Your task to perform on an android device: turn on airplane mode Image 0: 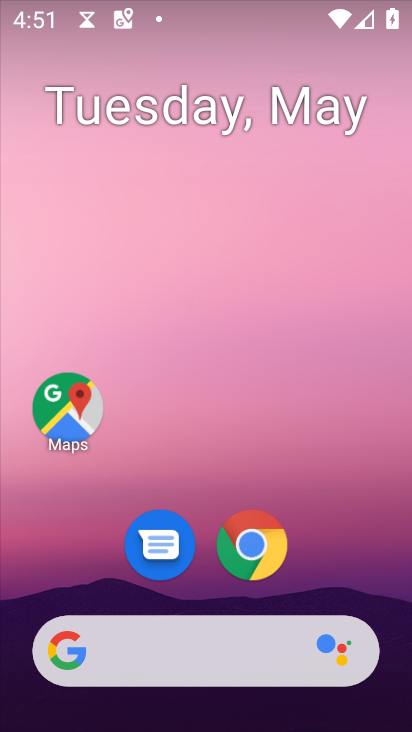
Step 0: drag from (339, 571) to (204, 199)
Your task to perform on an android device: turn on airplane mode Image 1: 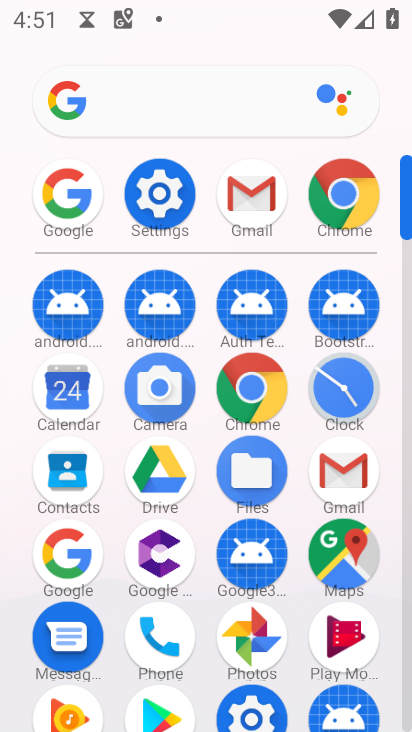
Step 1: click (160, 193)
Your task to perform on an android device: turn on airplane mode Image 2: 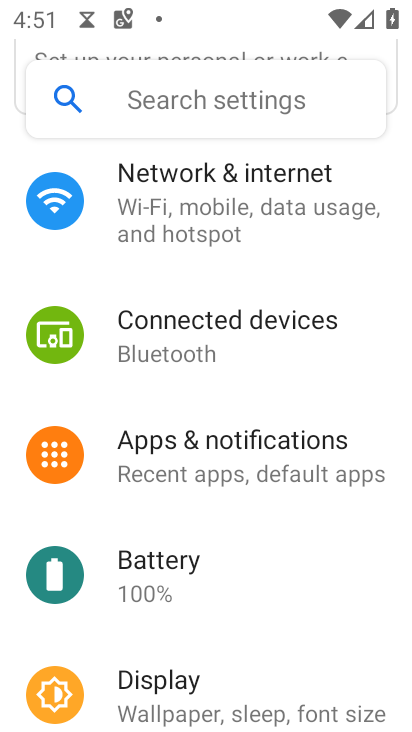
Step 2: click (189, 197)
Your task to perform on an android device: turn on airplane mode Image 3: 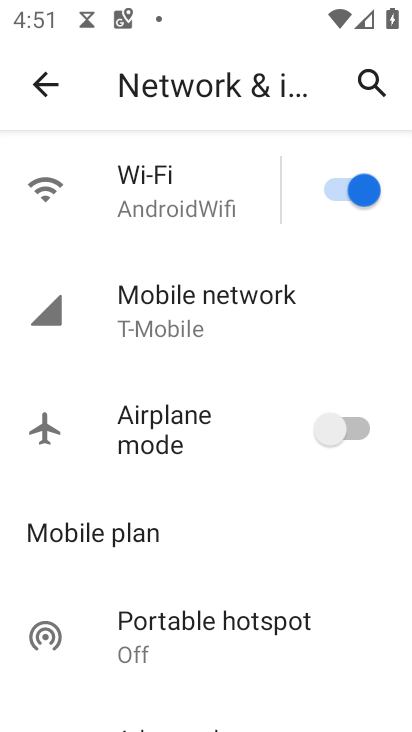
Step 3: click (332, 426)
Your task to perform on an android device: turn on airplane mode Image 4: 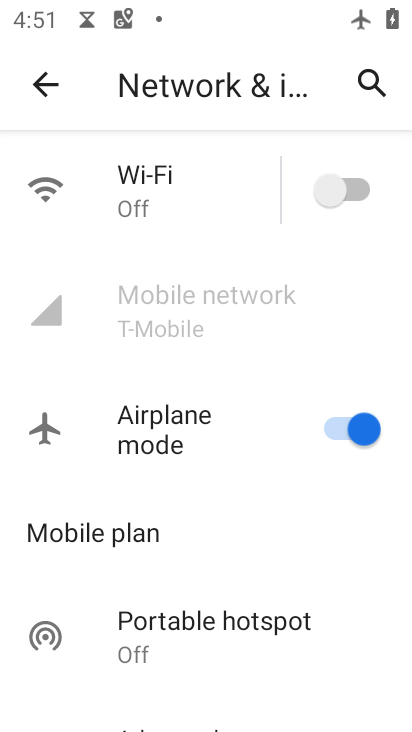
Step 4: task complete